Your task to perform on an android device: see creations saved in the google photos Image 0: 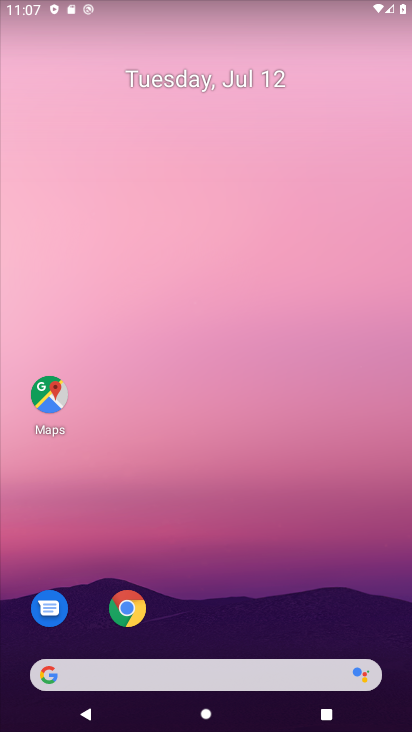
Step 0: drag from (230, 694) to (231, 632)
Your task to perform on an android device: see creations saved in the google photos Image 1: 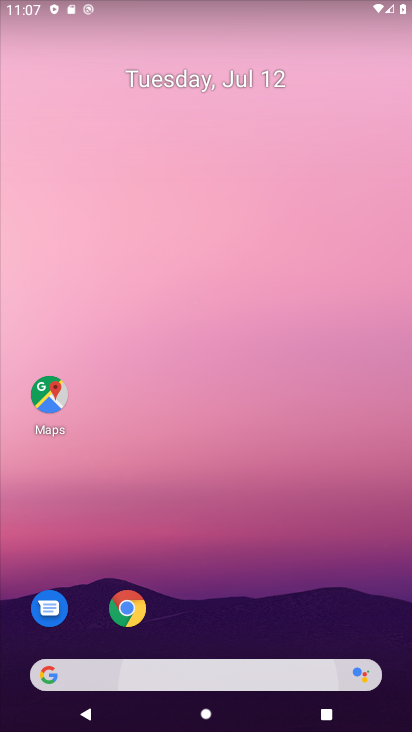
Step 1: drag from (236, 323) to (242, 121)
Your task to perform on an android device: see creations saved in the google photos Image 2: 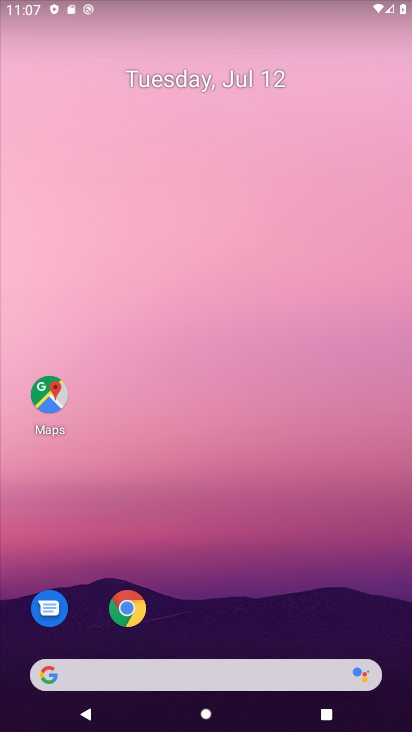
Step 2: drag from (242, 721) to (234, 70)
Your task to perform on an android device: see creations saved in the google photos Image 3: 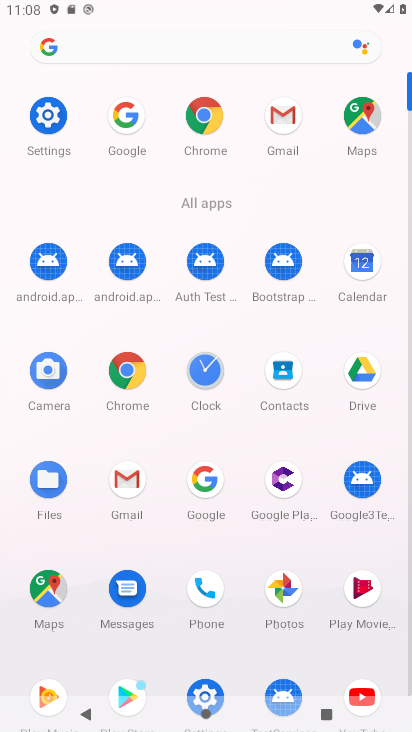
Step 3: click (285, 592)
Your task to perform on an android device: see creations saved in the google photos Image 4: 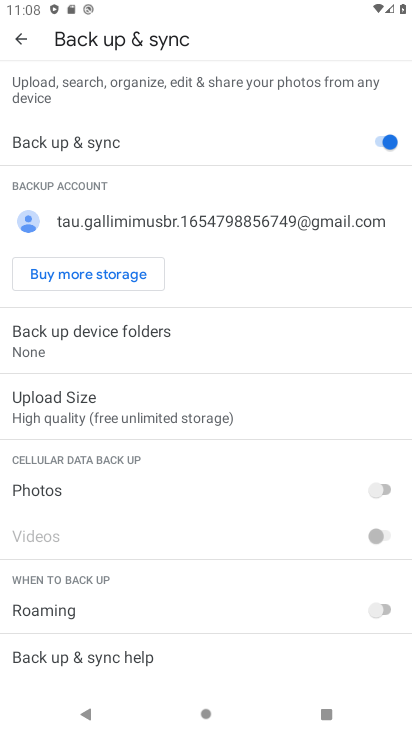
Step 4: click (22, 38)
Your task to perform on an android device: see creations saved in the google photos Image 5: 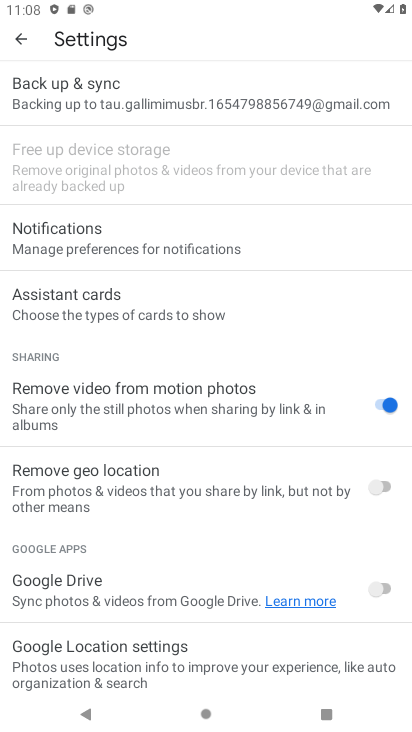
Step 5: click (21, 35)
Your task to perform on an android device: see creations saved in the google photos Image 6: 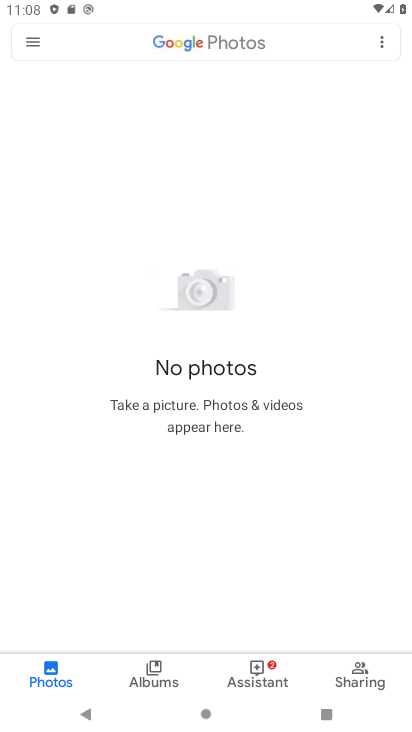
Step 6: click (201, 36)
Your task to perform on an android device: see creations saved in the google photos Image 7: 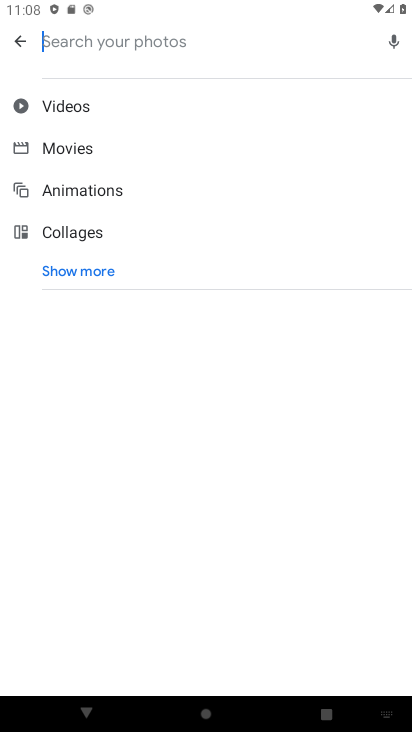
Step 7: click (74, 260)
Your task to perform on an android device: see creations saved in the google photos Image 8: 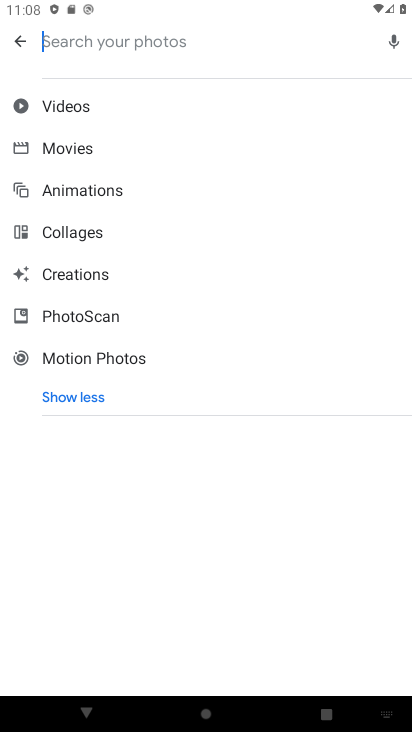
Step 8: click (69, 272)
Your task to perform on an android device: see creations saved in the google photos Image 9: 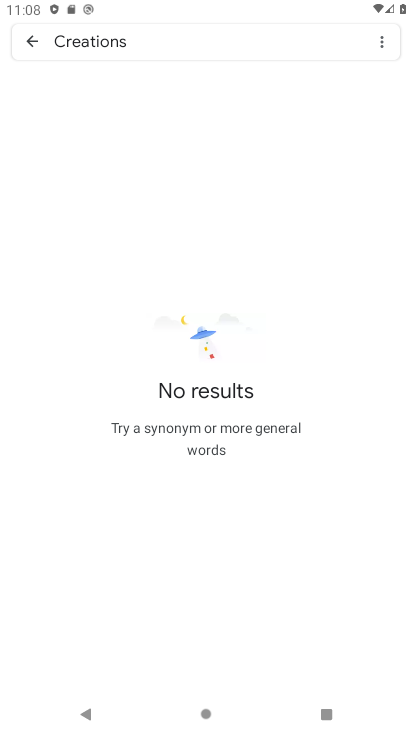
Step 9: task complete